Your task to perform on an android device: change the clock style Image 0: 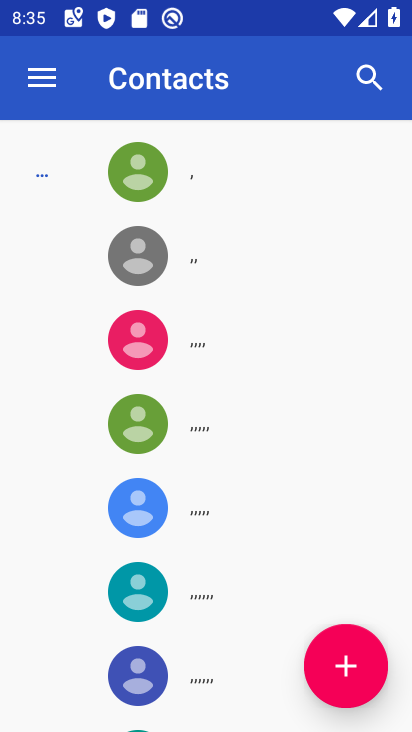
Step 0: press home button
Your task to perform on an android device: change the clock style Image 1: 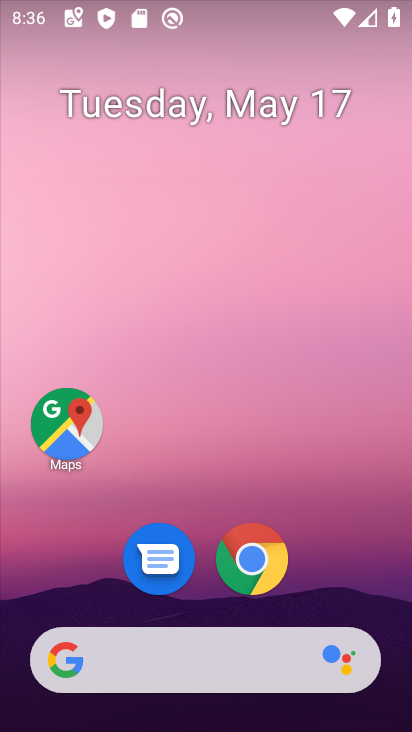
Step 1: drag from (265, 696) to (226, 204)
Your task to perform on an android device: change the clock style Image 2: 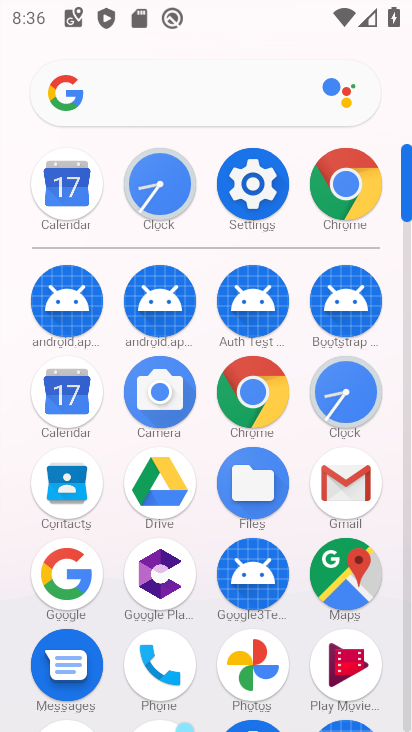
Step 2: click (177, 187)
Your task to perform on an android device: change the clock style Image 3: 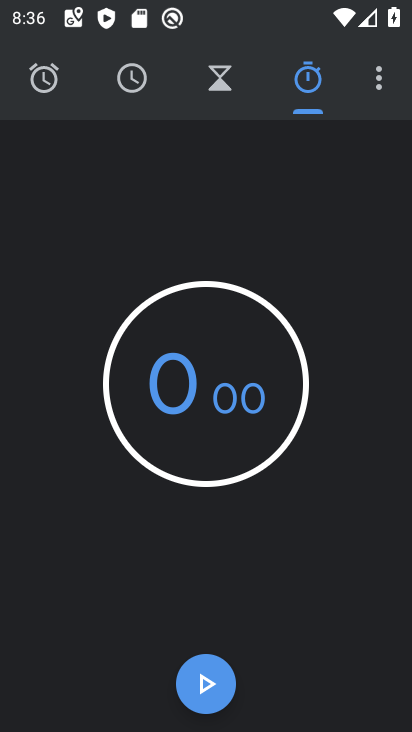
Step 3: click (384, 83)
Your task to perform on an android device: change the clock style Image 4: 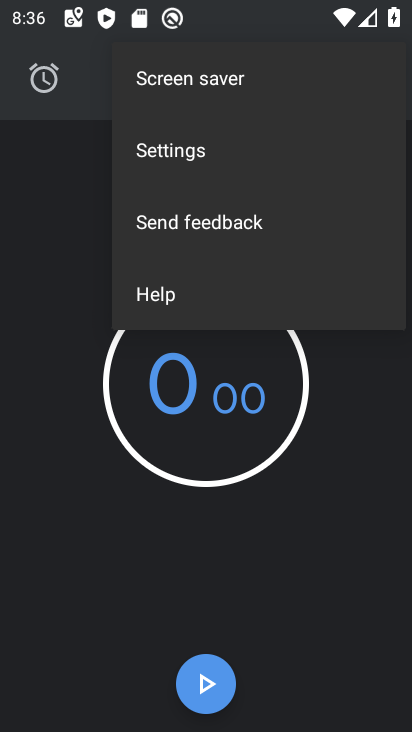
Step 4: click (231, 162)
Your task to perform on an android device: change the clock style Image 5: 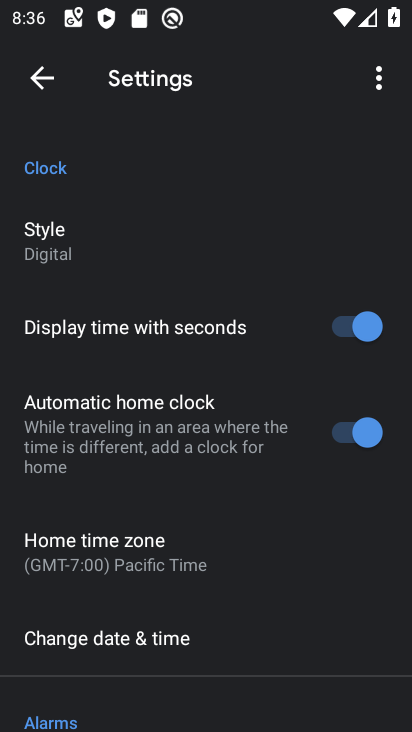
Step 5: click (68, 249)
Your task to perform on an android device: change the clock style Image 6: 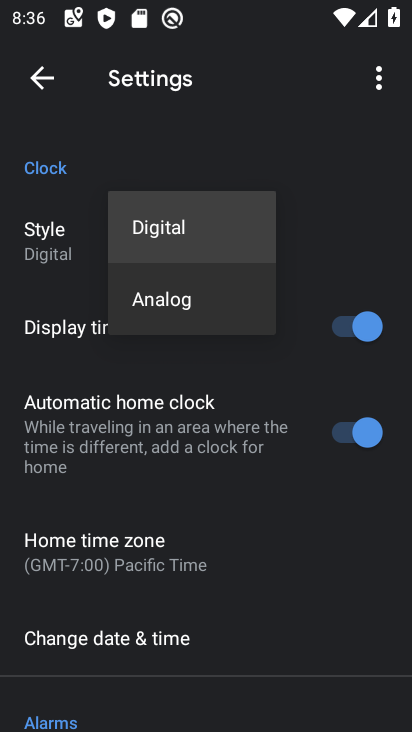
Step 6: click (161, 297)
Your task to perform on an android device: change the clock style Image 7: 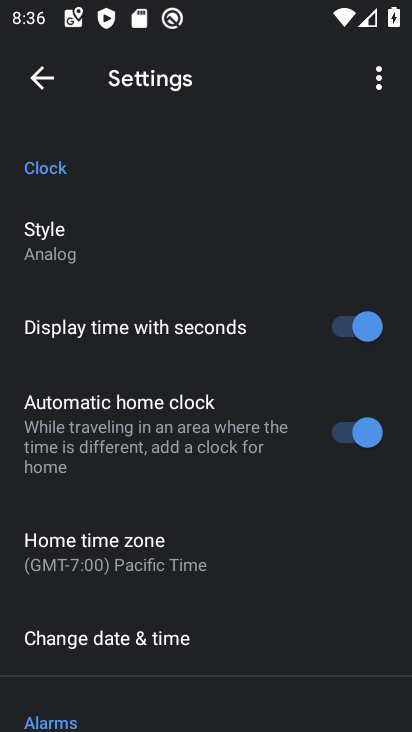
Step 7: task complete